Your task to perform on an android device: remove spam from my inbox in the gmail app Image 0: 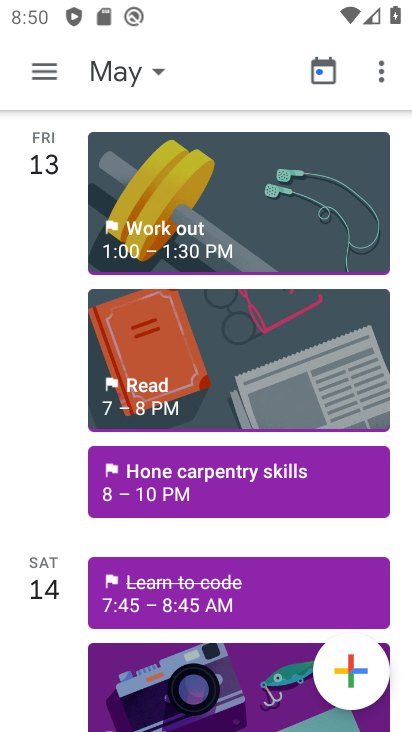
Step 0: press home button
Your task to perform on an android device: remove spam from my inbox in the gmail app Image 1: 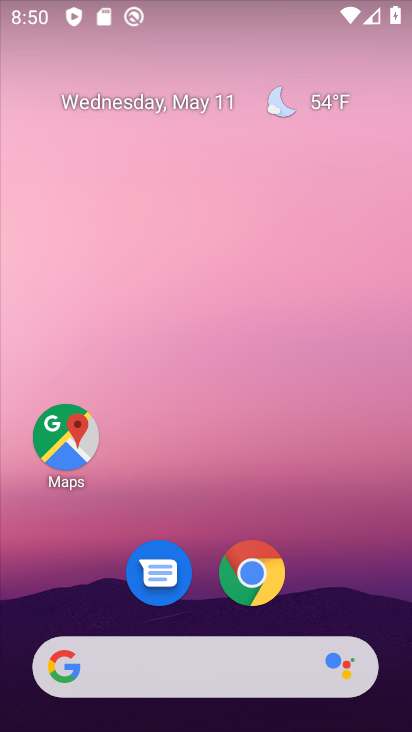
Step 1: drag from (311, 622) to (309, 4)
Your task to perform on an android device: remove spam from my inbox in the gmail app Image 2: 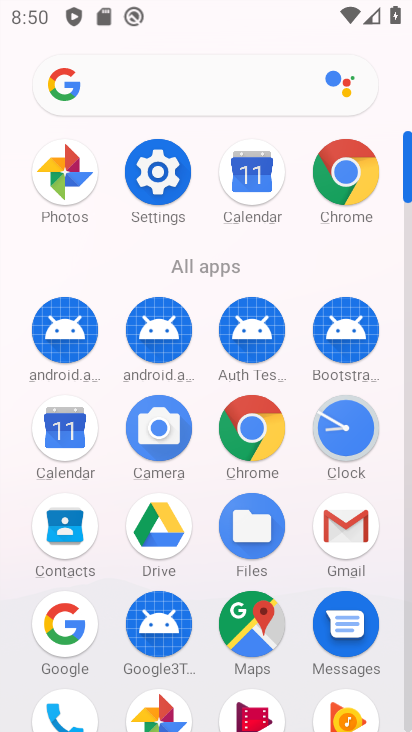
Step 2: click (357, 545)
Your task to perform on an android device: remove spam from my inbox in the gmail app Image 3: 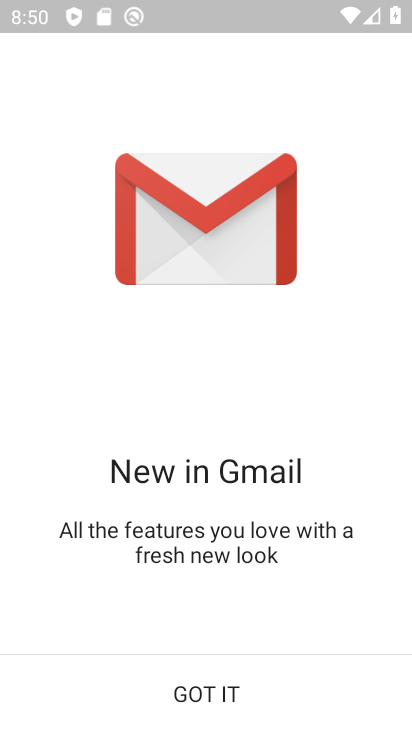
Step 3: click (138, 704)
Your task to perform on an android device: remove spam from my inbox in the gmail app Image 4: 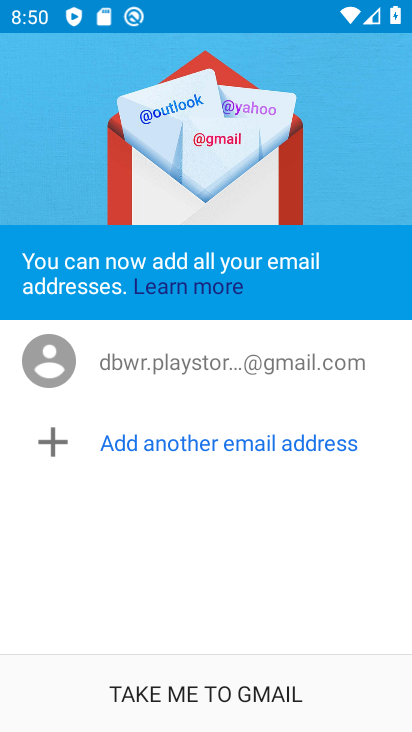
Step 4: click (143, 697)
Your task to perform on an android device: remove spam from my inbox in the gmail app Image 5: 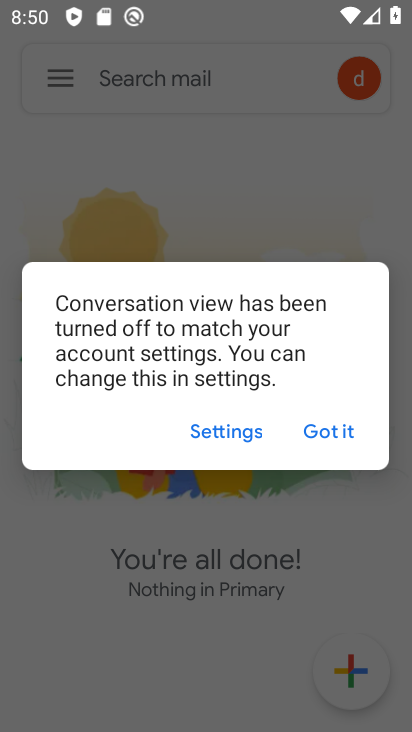
Step 5: click (328, 428)
Your task to perform on an android device: remove spam from my inbox in the gmail app Image 6: 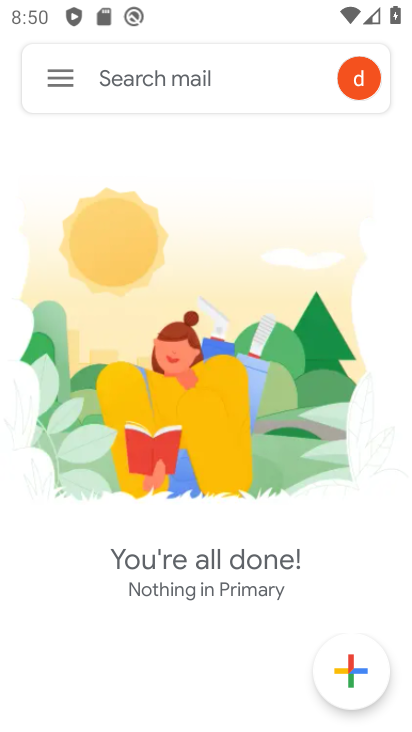
Step 6: click (66, 86)
Your task to perform on an android device: remove spam from my inbox in the gmail app Image 7: 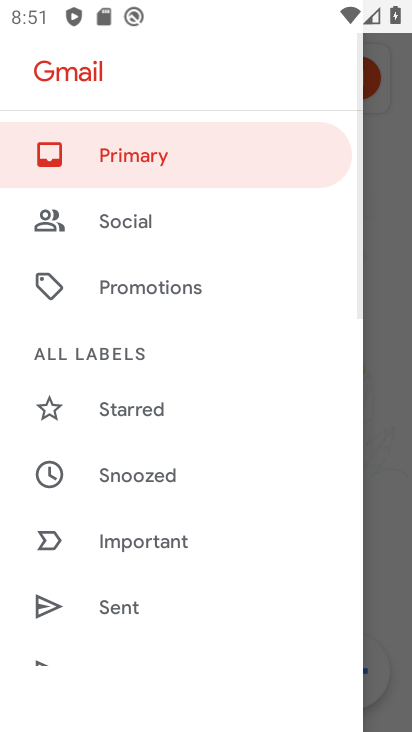
Step 7: drag from (125, 626) to (171, 211)
Your task to perform on an android device: remove spam from my inbox in the gmail app Image 8: 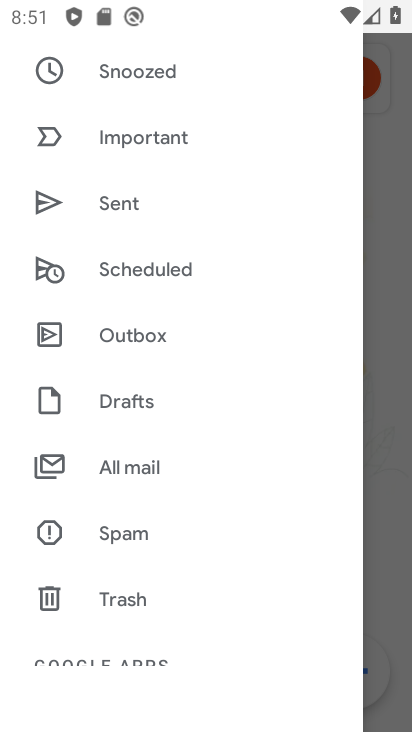
Step 8: click (150, 541)
Your task to perform on an android device: remove spam from my inbox in the gmail app Image 9: 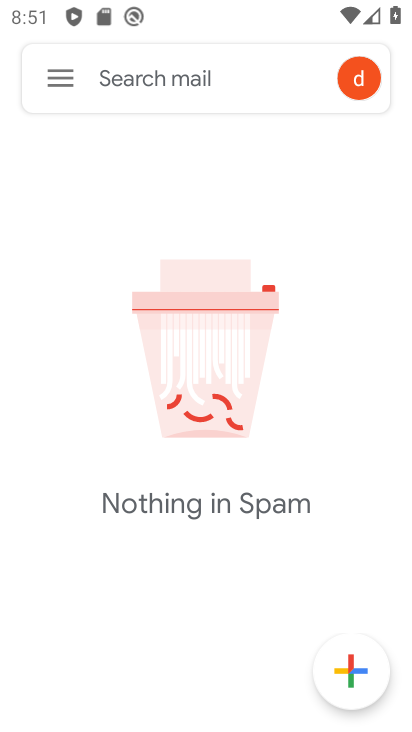
Step 9: task complete